Your task to perform on an android device: Open internet settings Image 0: 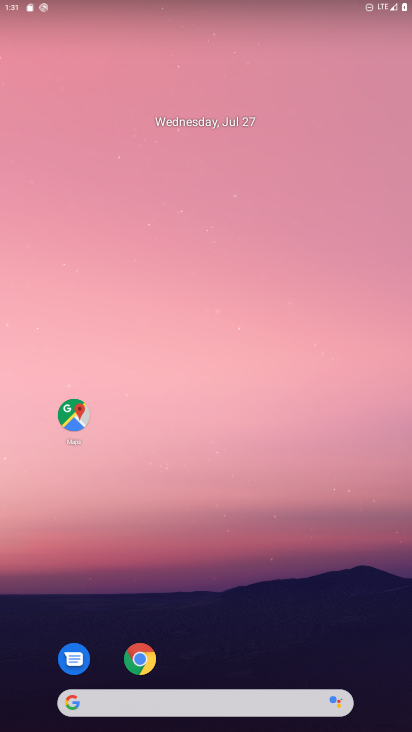
Step 0: drag from (185, 651) to (160, 195)
Your task to perform on an android device: Open internet settings Image 1: 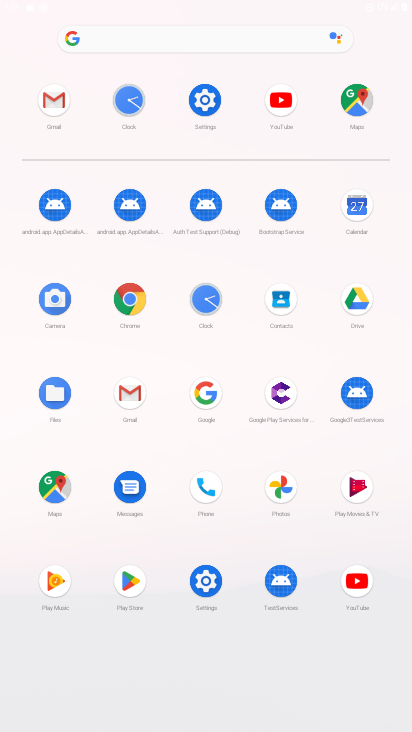
Step 1: click (200, 108)
Your task to perform on an android device: Open internet settings Image 2: 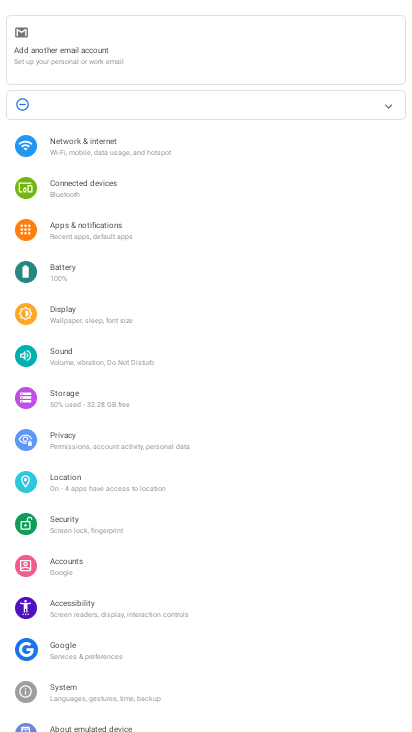
Step 2: click (81, 142)
Your task to perform on an android device: Open internet settings Image 3: 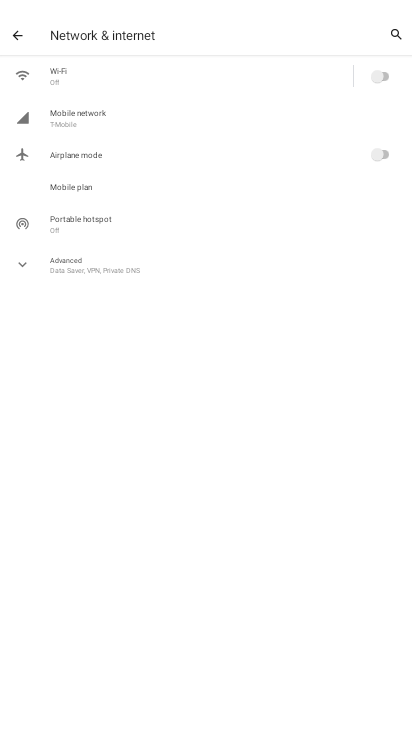
Step 3: task complete